Your task to perform on an android device: check data usage Image 0: 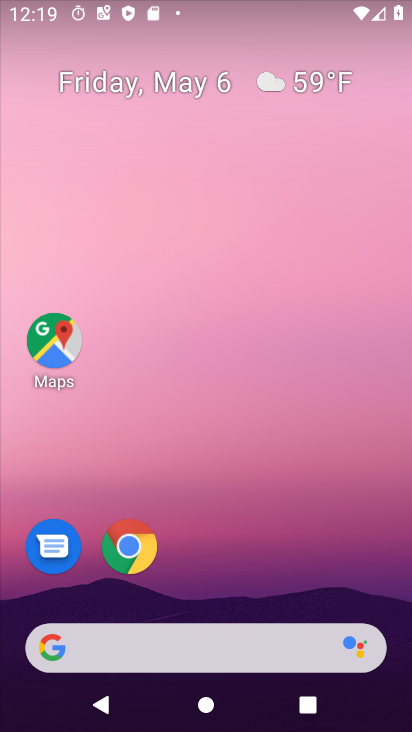
Step 0: drag from (257, 567) to (255, 96)
Your task to perform on an android device: check data usage Image 1: 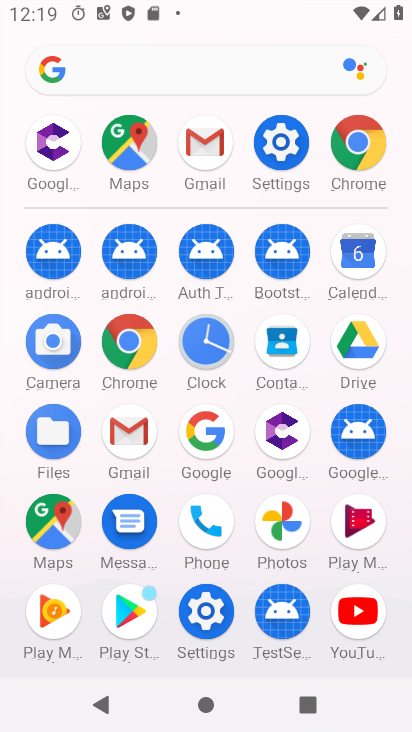
Step 1: click (287, 136)
Your task to perform on an android device: check data usage Image 2: 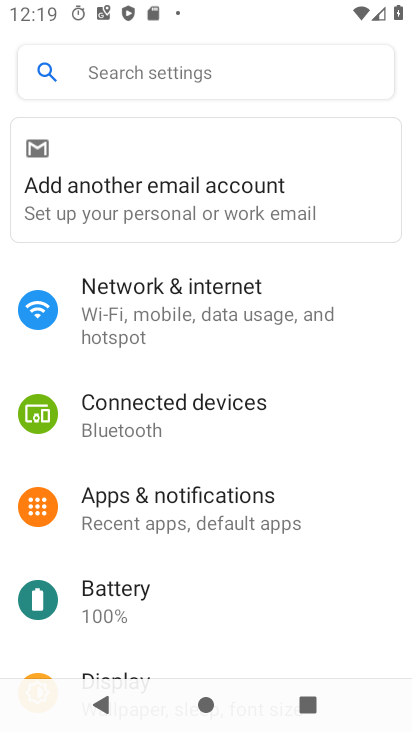
Step 2: click (190, 325)
Your task to perform on an android device: check data usage Image 3: 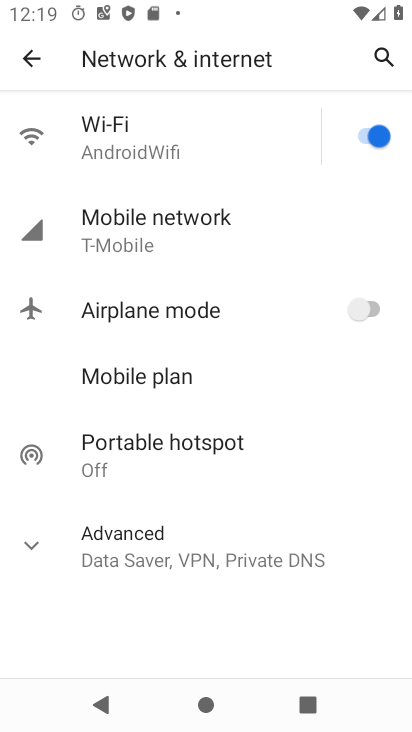
Step 3: click (137, 224)
Your task to perform on an android device: check data usage Image 4: 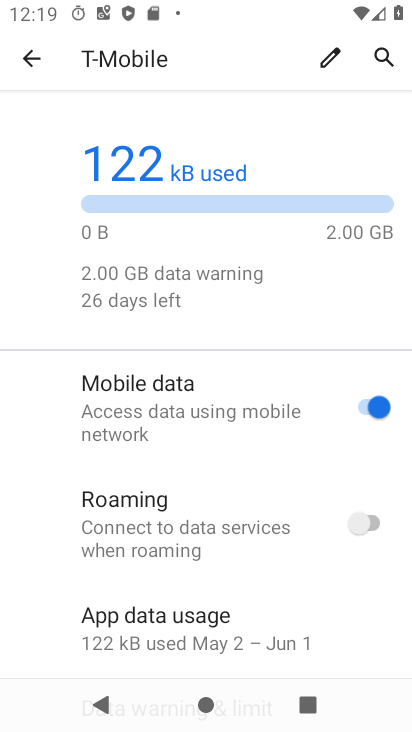
Step 4: click (191, 623)
Your task to perform on an android device: check data usage Image 5: 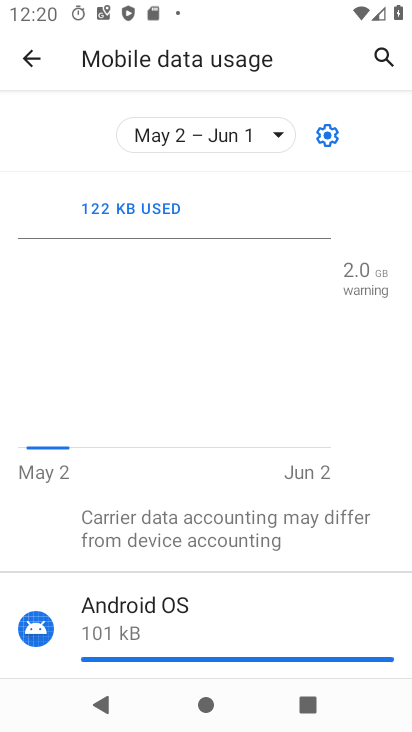
Step 5: task complete